Your task to perform on an android device: Turn off the flashlight Image 0: 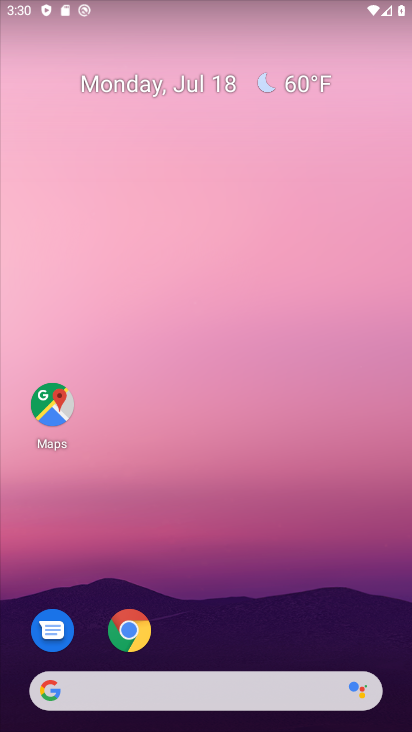
Step 0: drag from (174, 8) to (227, 472)
Your task to perform on an android device: Turn off the flashlight Image 1: 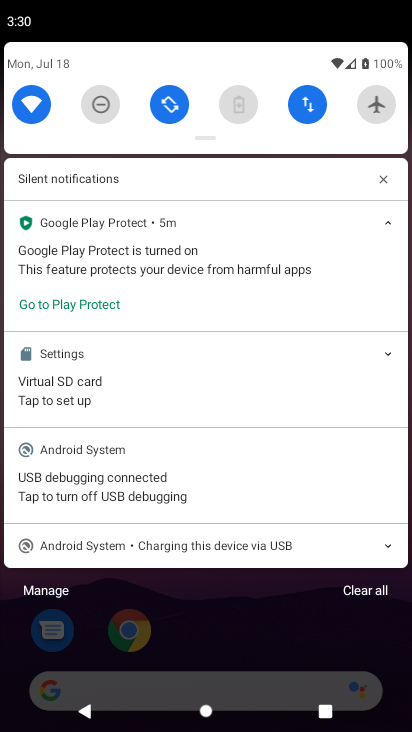
Step 1: drag from (217, 139) to (270, 568)
Your task to perform on an android device: Turn off the flashlight Image 2: 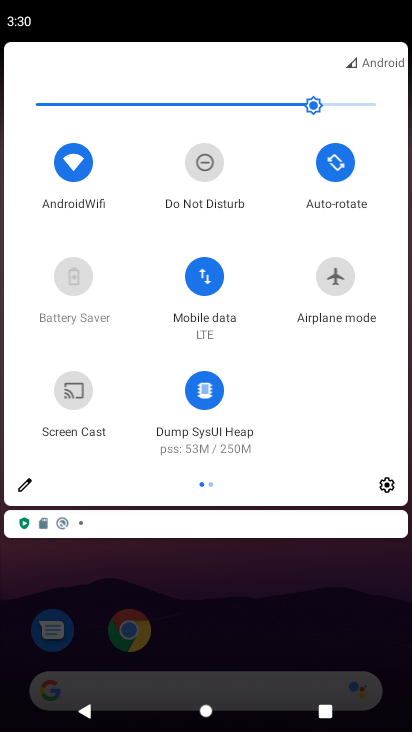
Step 2: click (27, 482)
Your task to perform on an android device: Turn off the flashlight Image 3: 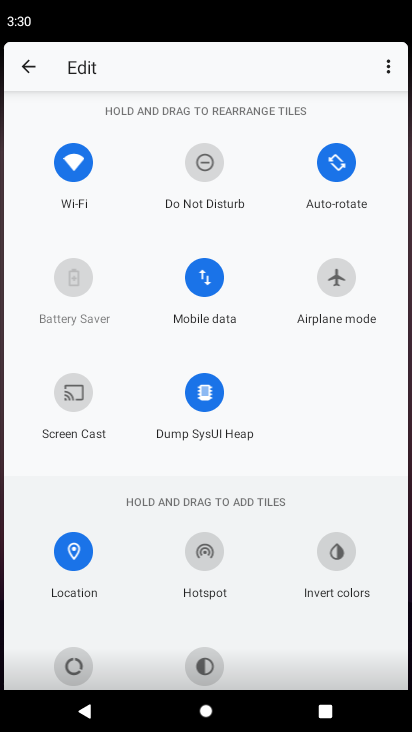
Step 3: task complete